Your task to perform on an android device: Go to notification settings Image 0: 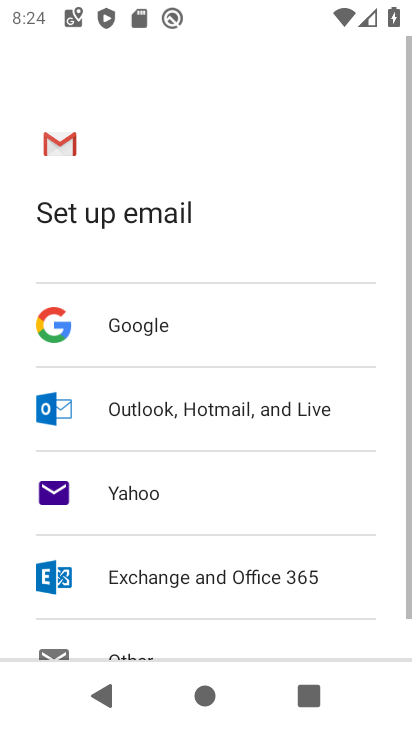
Step 0: press home button
Your task to perform on an android device: Go to notification settings Image 1: 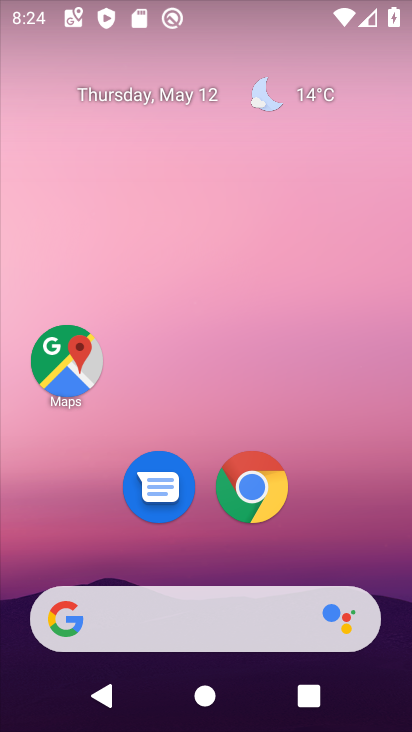
Step 1: drag from (350, 480) to (328, 10)
Your task to perform on an android device: Go to notification settings Image 2: 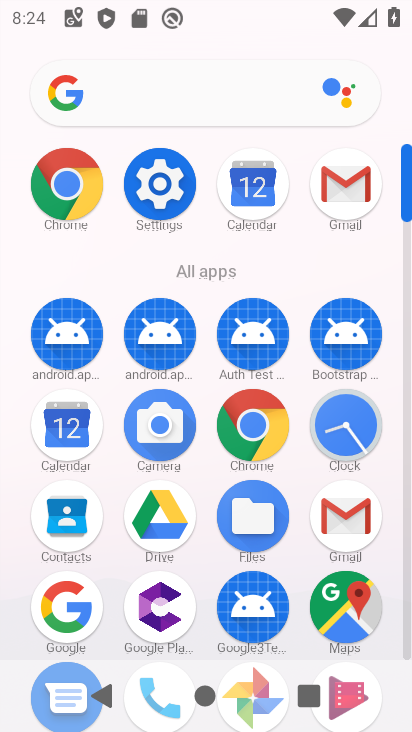
Step 2: click (170, 186)
Your task to perform on an android device: Go to notification settings Image 3: 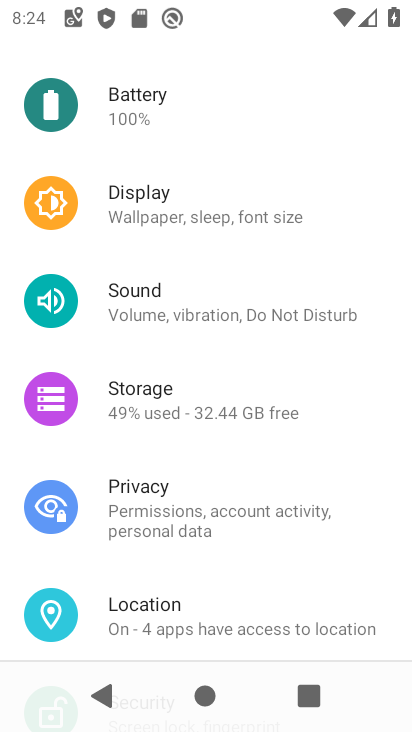
Step 3: drag from (368, 216) to (376, 536)
Your task to perform on an android device: Go to notification settings Image 4: 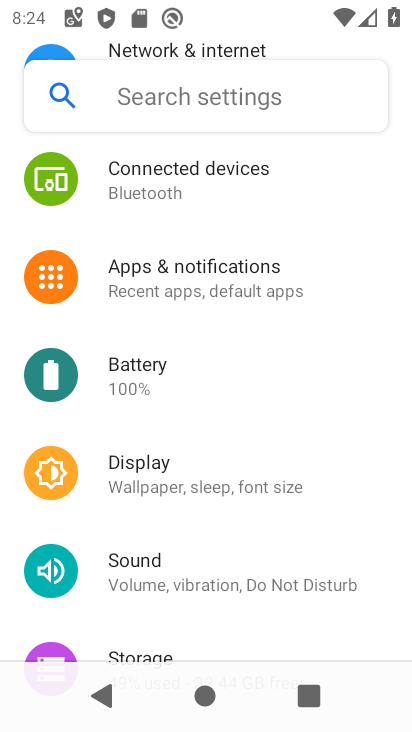
Step 4: click (164, 296)
Your task to perform on an android device: Go to notification settings Image 5: 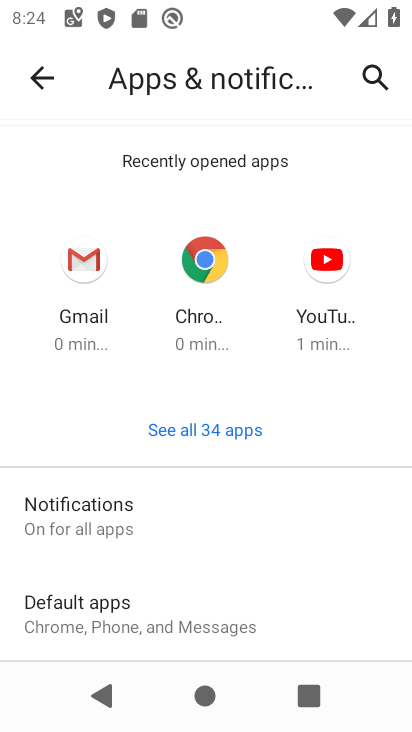
Step 5: task complete